Your task to perform on an android device: open device folders in google photos Image 0: 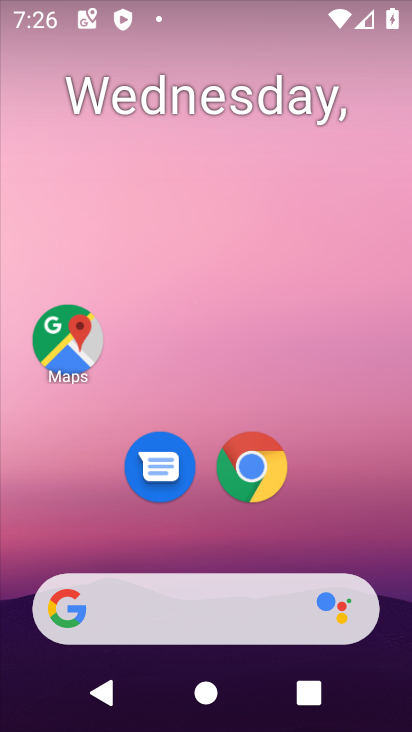
Step 0: drag from (376, 559) to (397, 197)
Your task to perform on an android device: open device folders in google photos Image 1: 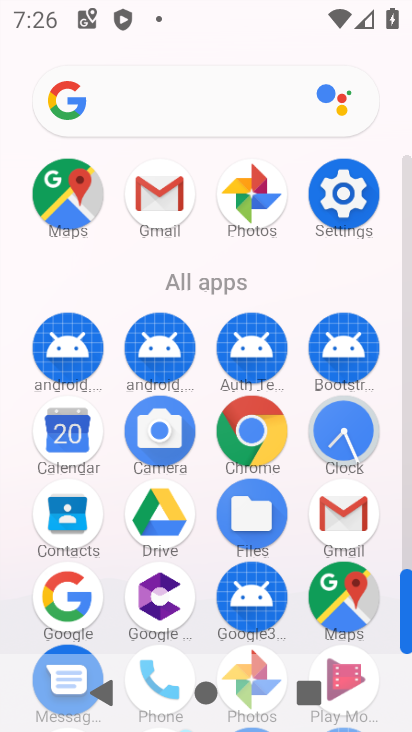
Step 1: click (241, 192)
Your task to perform on an android device: open device folders in google photos Image 2: 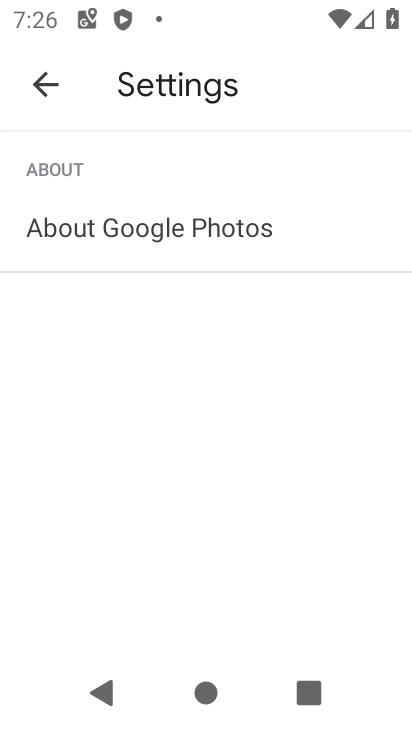
Step 2: click (38, 87)
Your task to perform on an android device: open device folders in google photos Image 3: 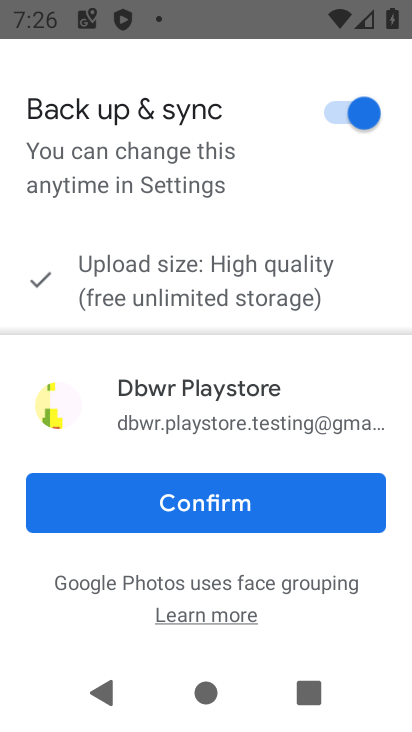
Step 3: click (161, 498)
Your task to perform on an android device: open device folders in google photos Image 4: 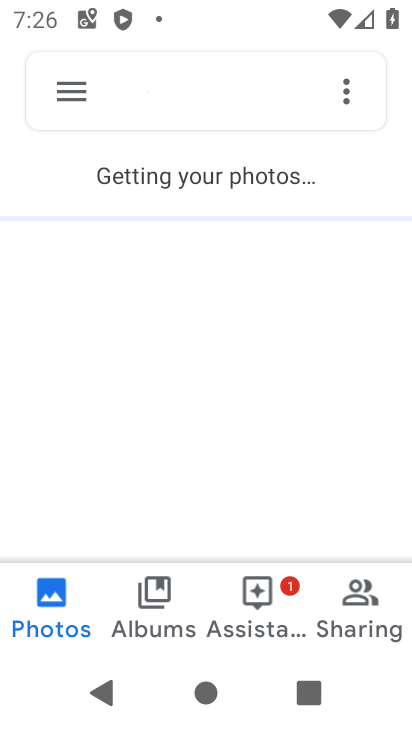
Step 4: click (76, 82)
Your task to perform on an android device: open device folders in google photos Image 5: 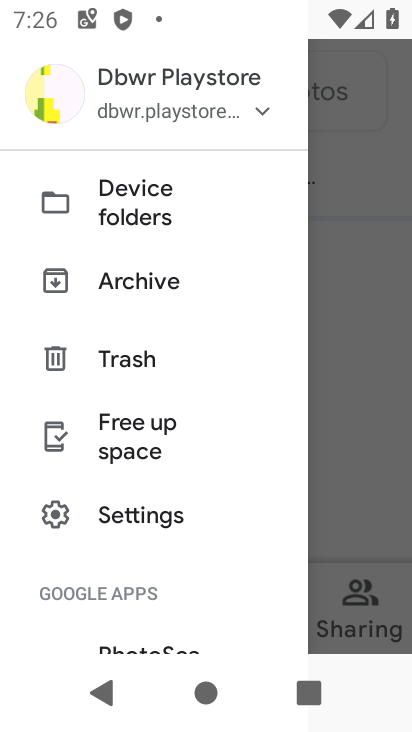
Step 5: click (110, 199)
Your task to perform on an android device: open device folders in google photos Image 6: 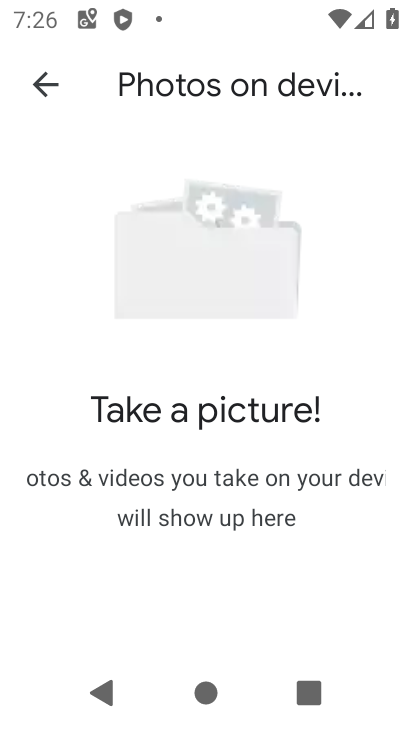
Step 6: task complete